Your task to perform on an android device: check android version Image 0: 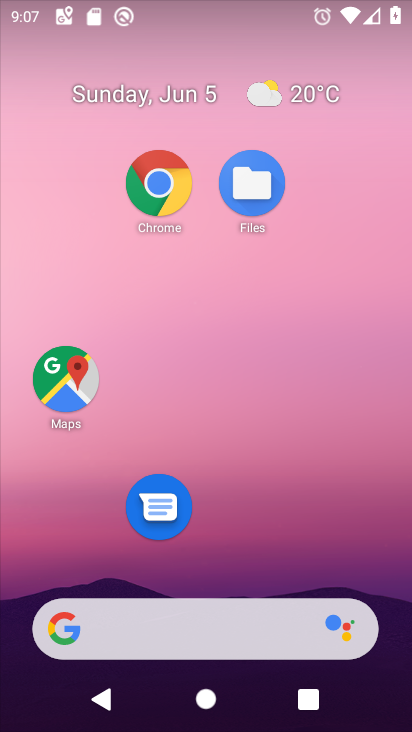
Step 0: drag from (207, 580) to (231, 2)
Your task to perform on an android device: check android version Image 1: 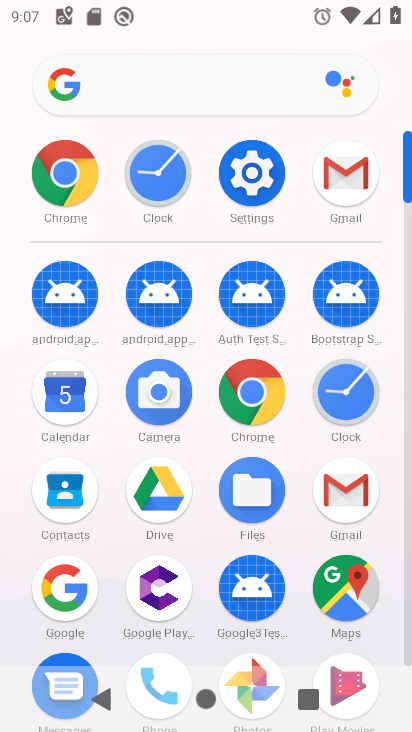
Step 1: click (268, 158)
Your task to perform on an android device: check android version Image 2: 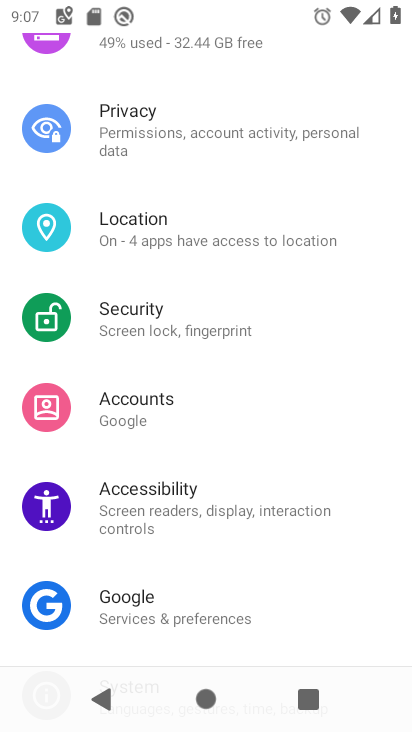
Step 2: drag from (224, 582) to (195, 225)
Your task to perform on an android device: check android version Image 3: 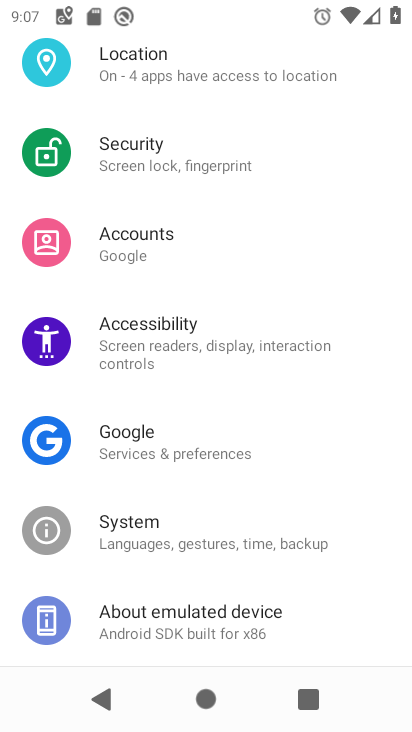
Step 3: click (155, 614)
Your task to perform on an android device: check android version Image 4: 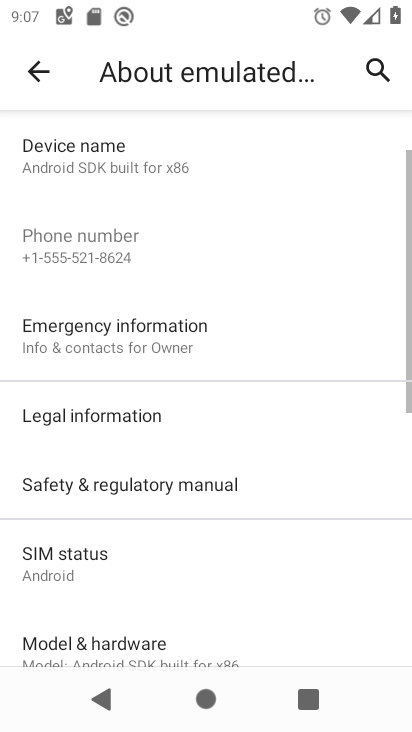
Step 4: drag from (177, 516) to (127, 82)
Your task to perform on an android device: check android version Image 5: 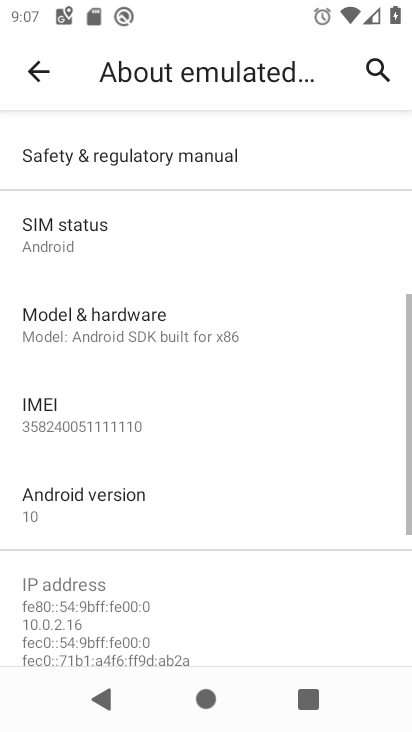
Step 5: click (86, 492)
Your task to perform on an android device: check android version Image 6: 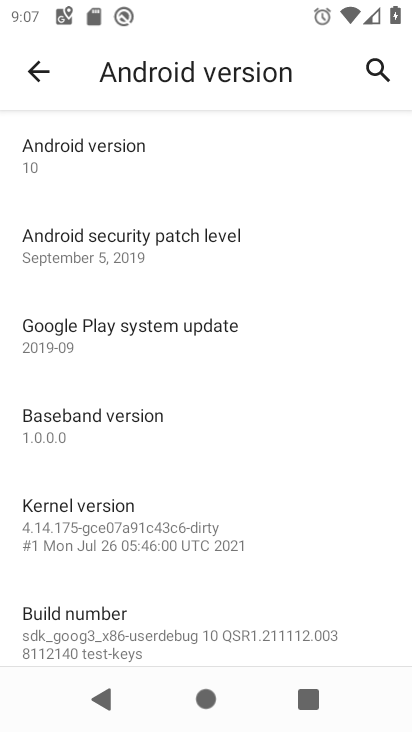
Step 6: task complete